Your task to perform on an android device: turn on the 12-hour format for clock Image 0: 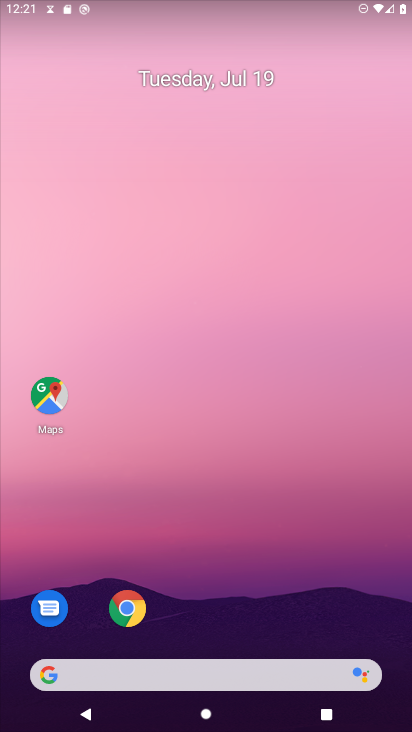
Step 0: drag from (268, 635) to (390, 61)
Your task to perform on an android device: turn on the 12-hour format for clock Image 1: 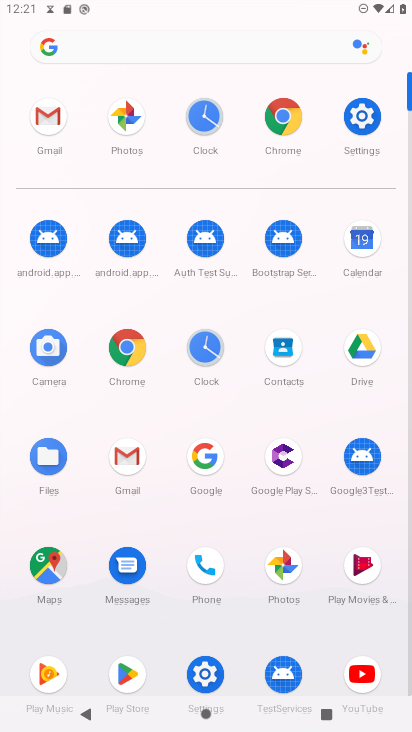
Step 1: click (210, 354)
Your task to perform on an android device: turn on the 12-hour format for clock Image 2: 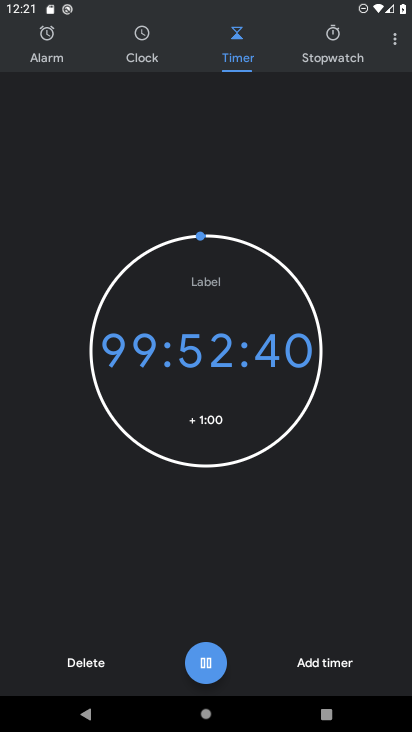
Step 2: drag from (404, 40) to (311, 72)
Your task to perform on an android device: turn on the 12-hour format for clock Image 3: 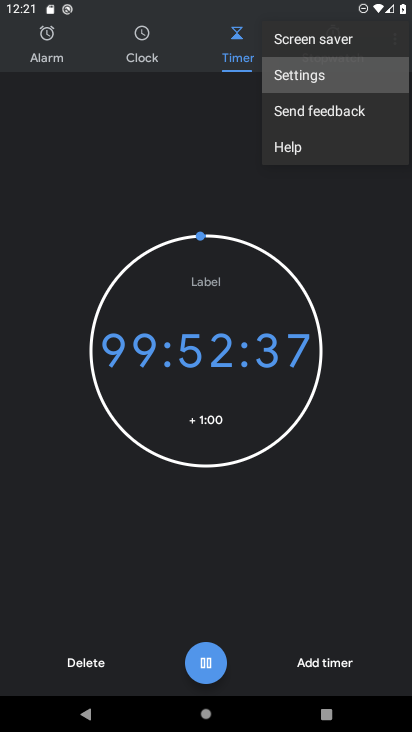
Step 3: click (312, 73)
Your task to perform on an android device: turn on the 12-hour format for clock Image 4: 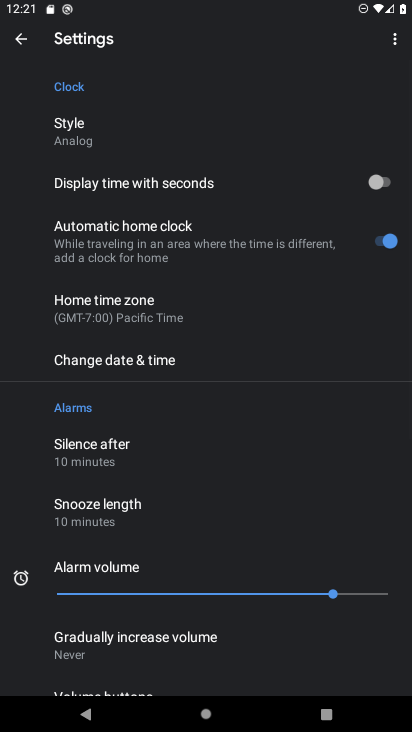
Step 4: click (138, 363)
Your task to perform on an android device: turn on the 12-hour format for clock Image 5: 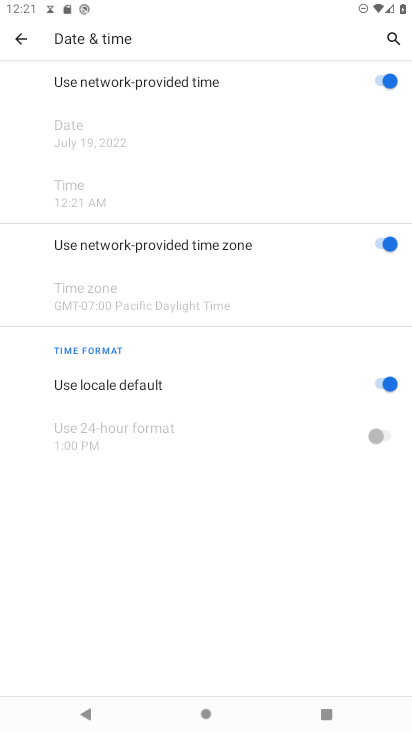
Step 5: task complete